Your task to perform on an android device: Is it going to rain today? Image 0: 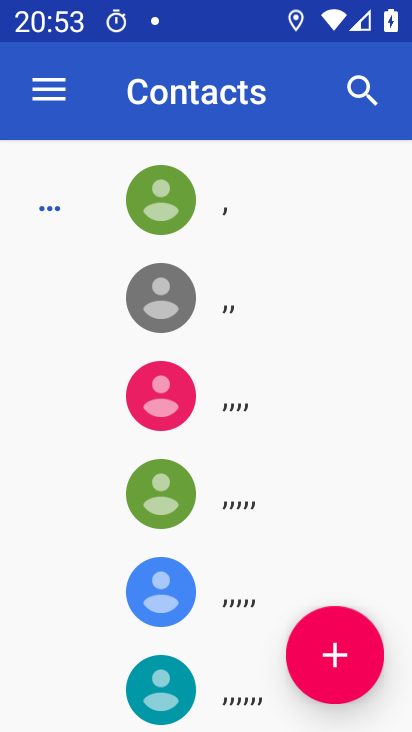
Step 0: press home button
Your task to perform on an android device: Is it going to rain today? Image 1: 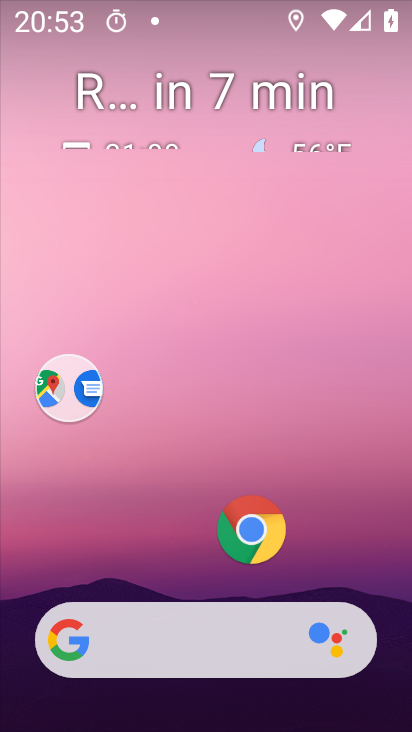
Step 1: drag from (180, 549) to (160, 96)
Your task to perform on an android device: Is it going to rain today? Image 2: 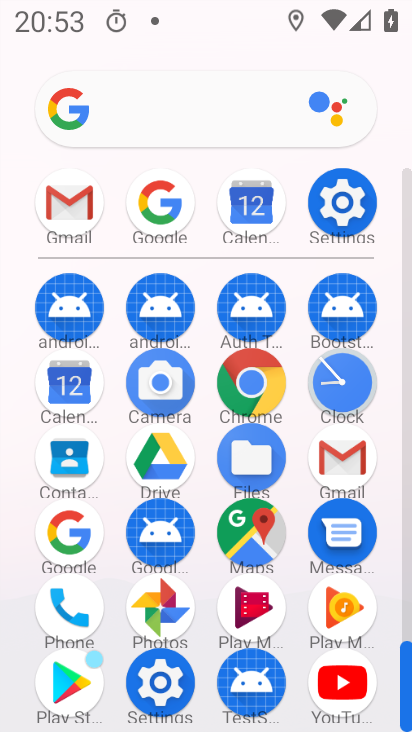
Step 2: click (161, 207)
Your task to perform on an android device: Is it going to rain today? Image 3: 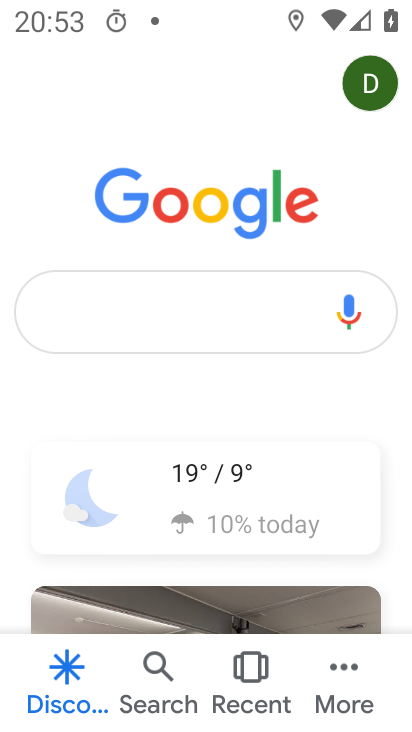
Step 3: click (197, 307)
Your task to perform on an android device: Is it going to rain today? Image 4: 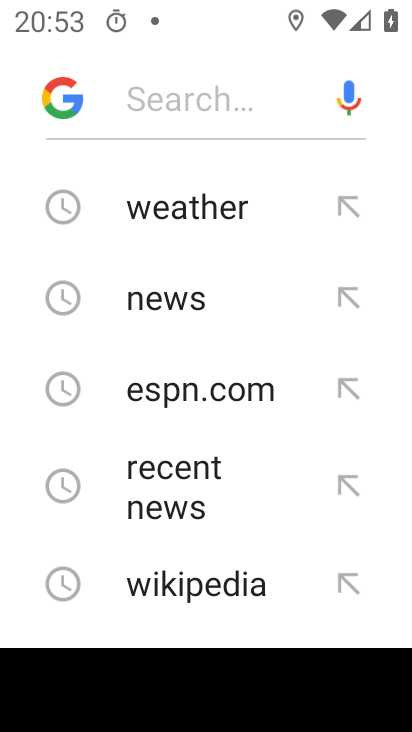
Step 4: type "is it going to rain today"
Your task to perform on an android device: Is it going to rain today? Image 5: 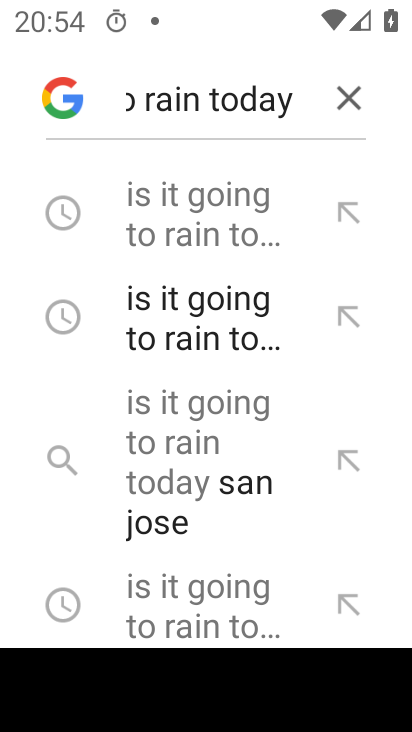
Step 5: click (188, 204)
Your task to perform on an android device: Is it going to rain today? Image 6: 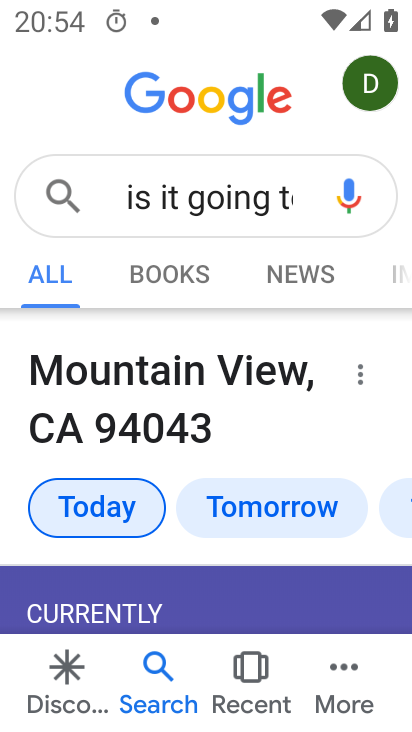
Step 6: task complete